Your task to perform on an android device: Go to network settings Image 0: 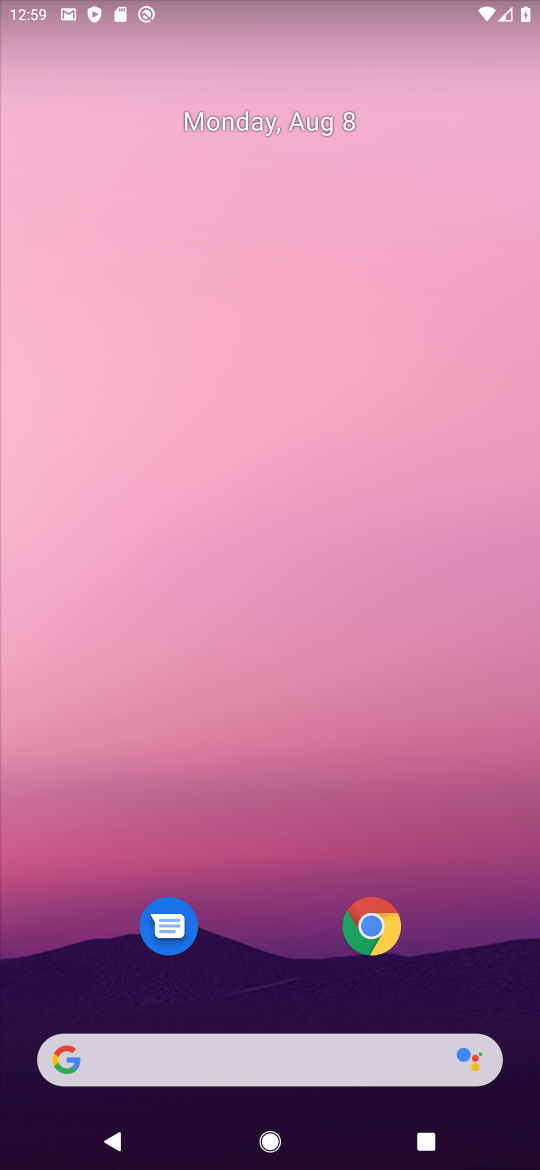
Step 0: drag from (275, 987) to (150, 408)
Your task to perform on an android device: Go to network settings Image 1: 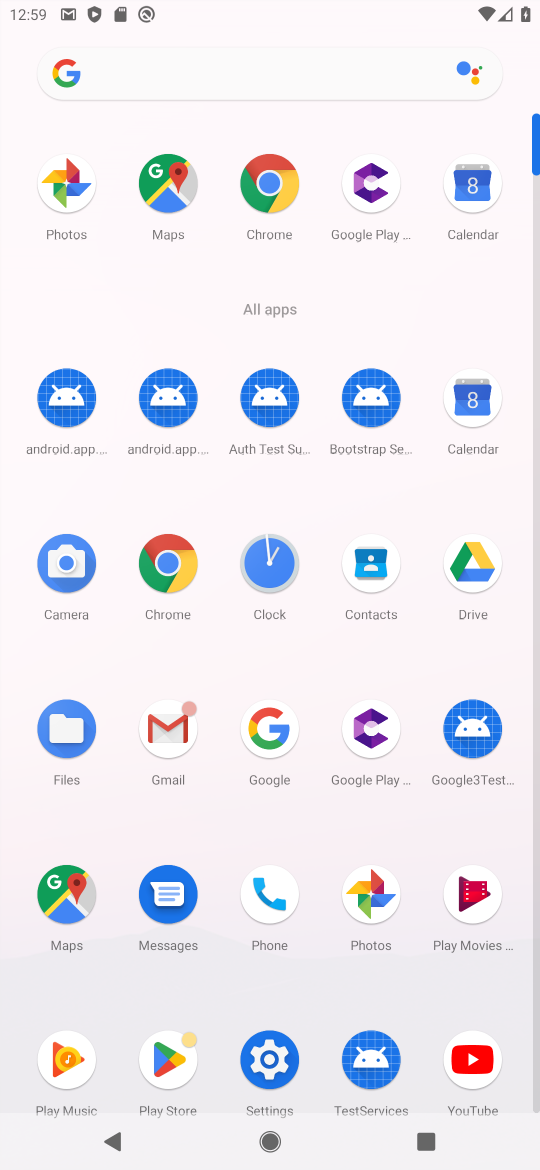
Step 1: click (252, 1070)
Your task to perform on an android device: Go to network settings Image 2: 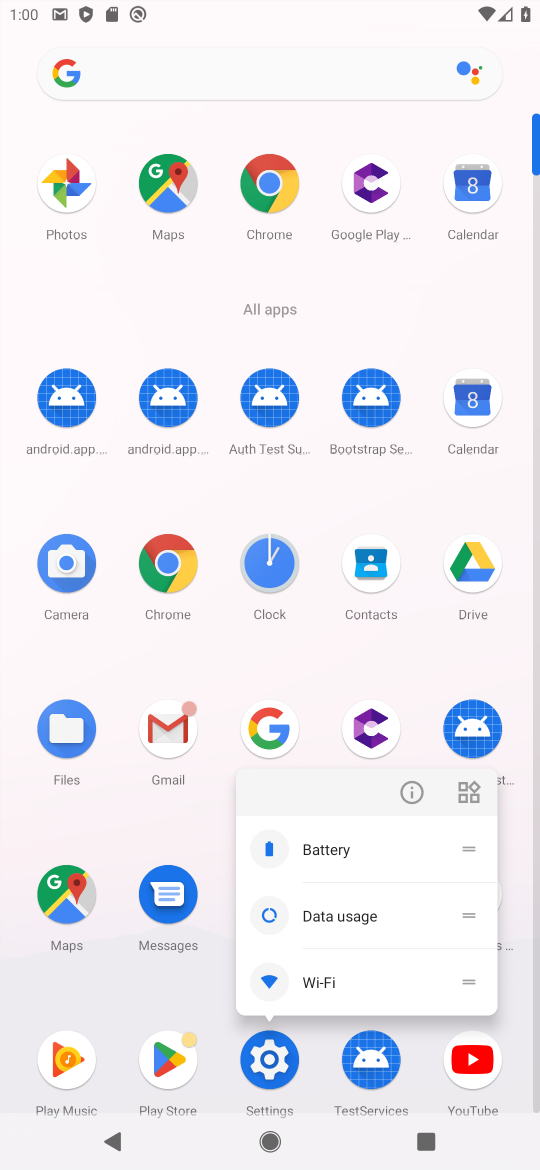
Step 2: click (299, 1048)
Your task to perform on an android device: Go to network settings Image 3: 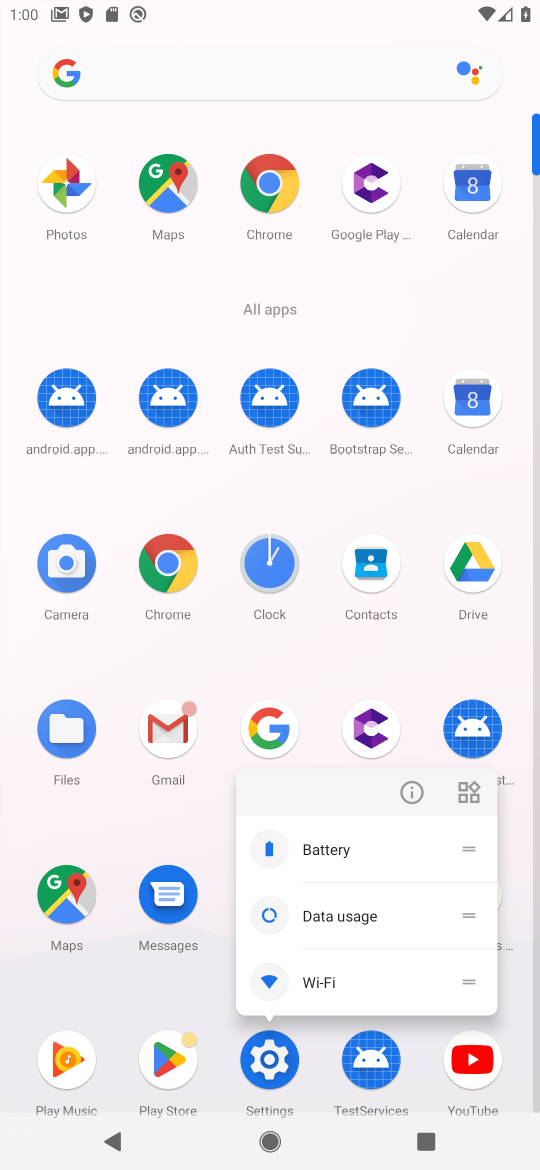
Step 3: click (250, 1059)
Your task to perform on an android device: Go to network settings Image 4: 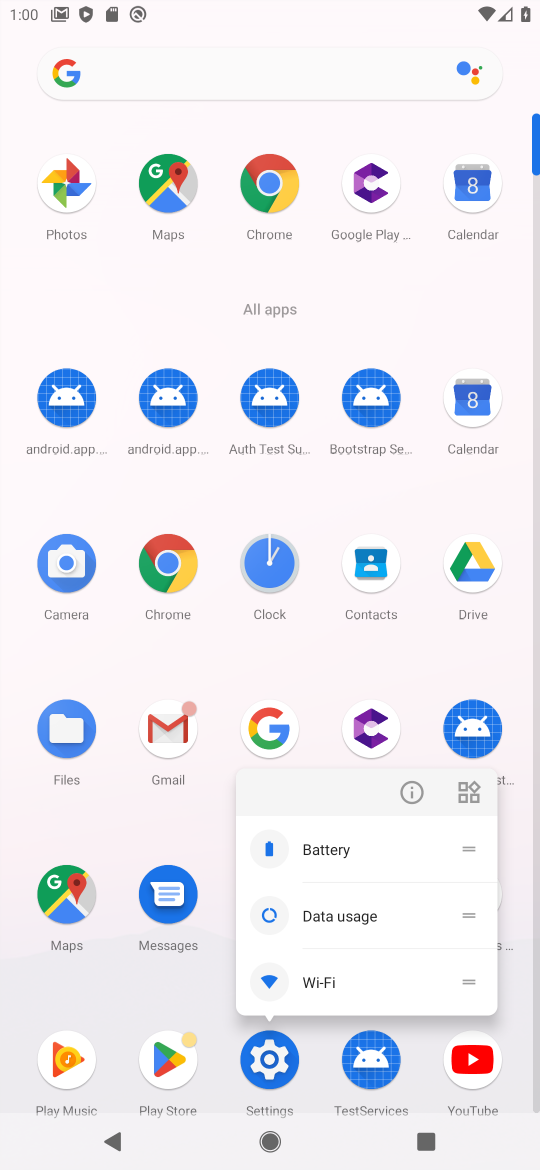
Step 4: click (274, 1042)
Your task to perform on an android device: Go to network settings Image 5: 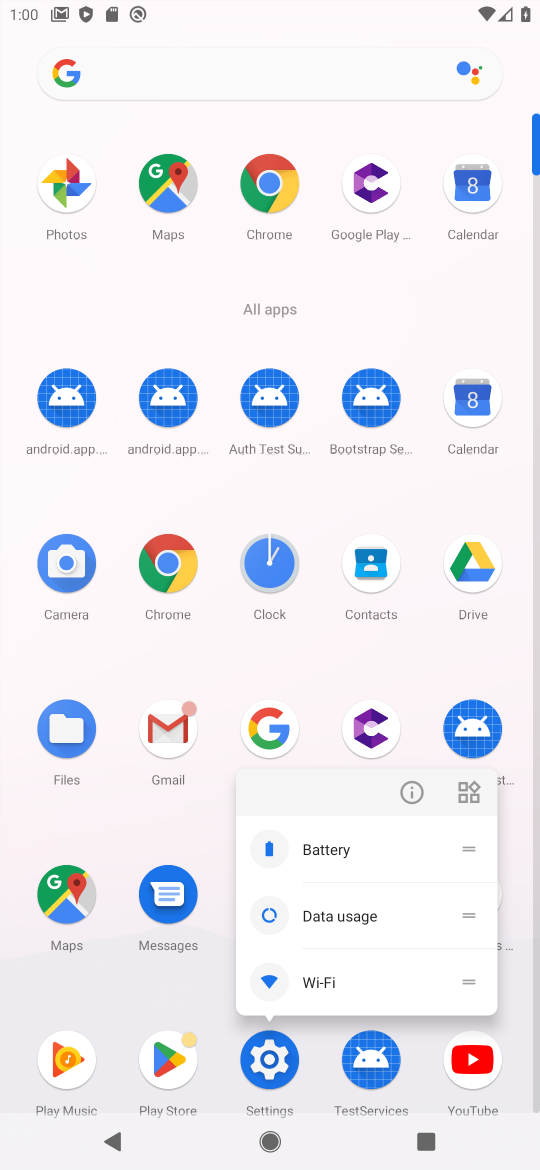
Step 5: click (274, 1042)
Your task to perform on an android device: Go to network settings Image 6: 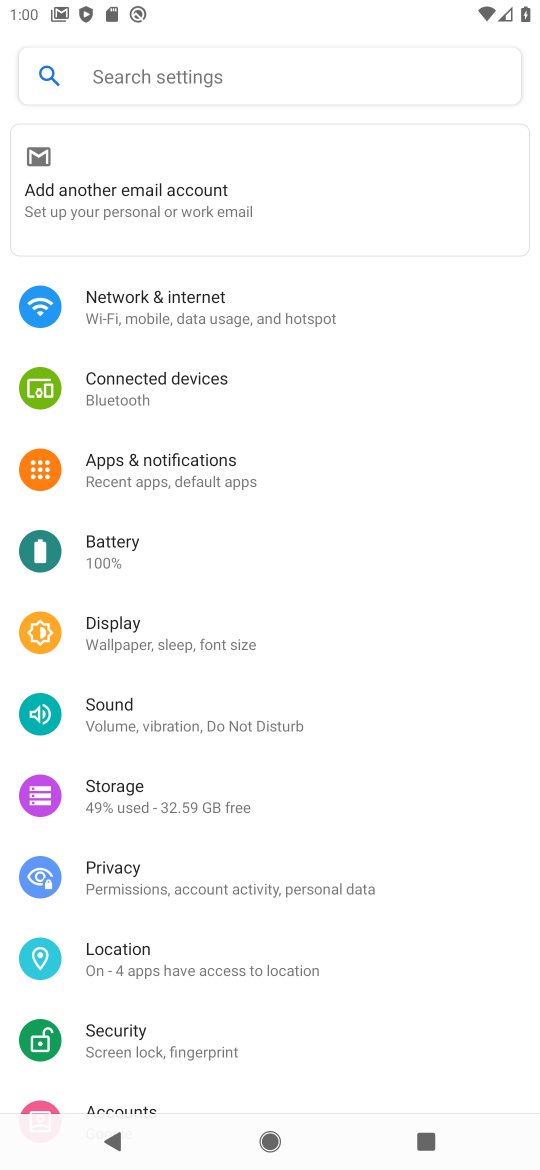
Step 6: click (166, 296)
Your task to perform on an android device: Go to network settings Image 7: 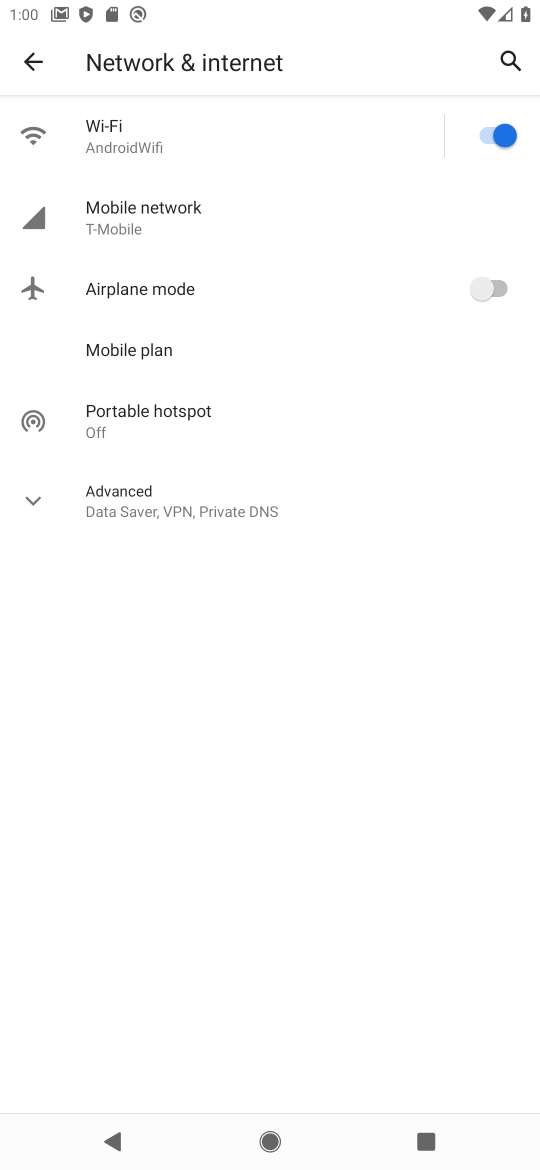
Step 7: task complete